Your task to perform on an android device: turn off translation in the chrome app Image 0: 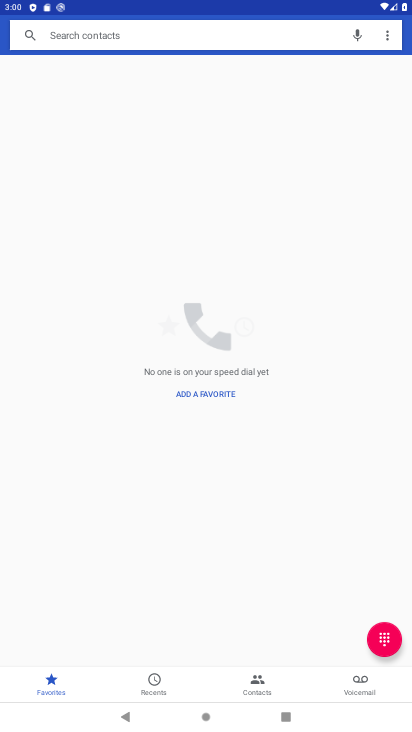
Step 0: press home button
Your task to perform on an android device: turn off translation in the chrome app Image 1: 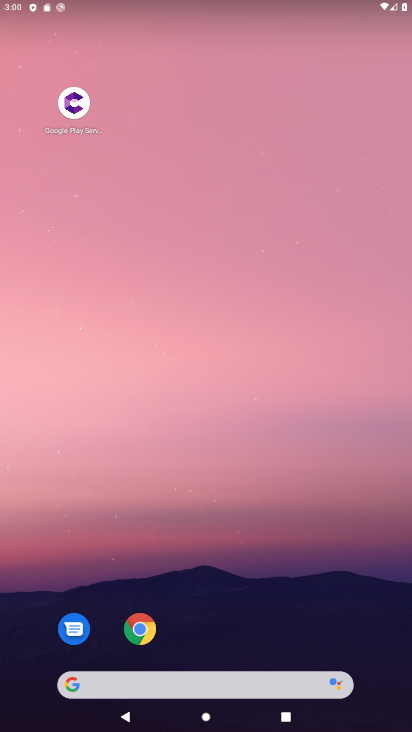
Step 1: click (135, 625)
Your task to perform on an android device: turn off translation in the chrome app Image 2: 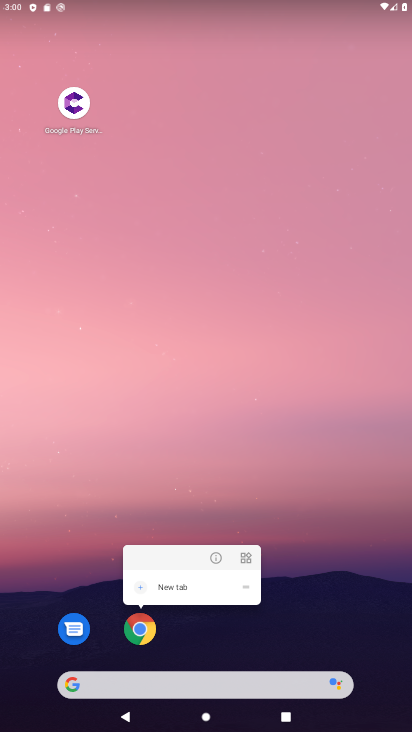
Step 2: click (147, 631)
Your task to perform on an android device: turn off translation in the chrome app Image 3: 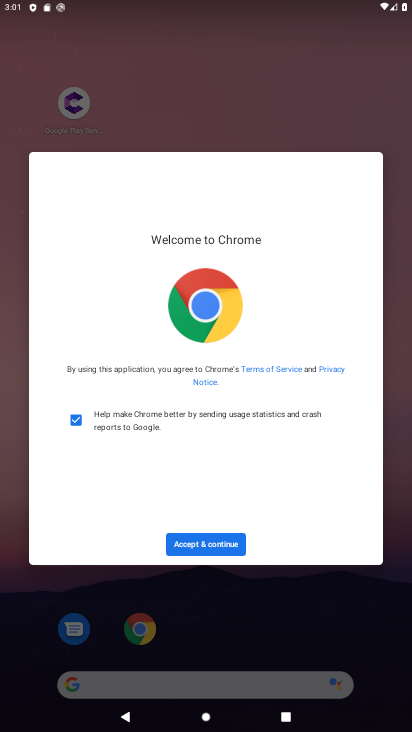
Step 3: click (221, 545)
Your task to perform on an android device: turn off translation in the chrome app Image 4: 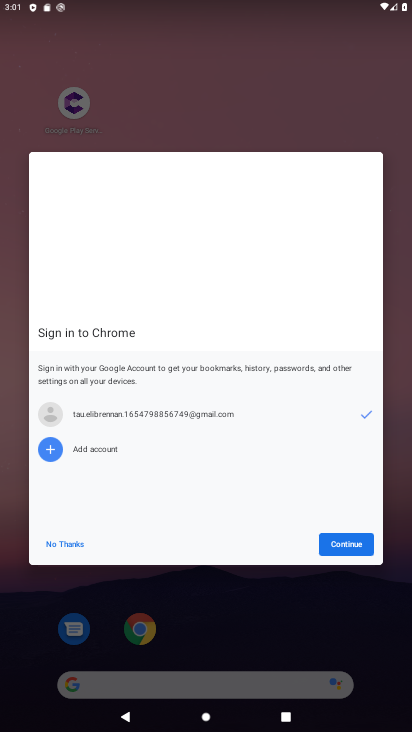
Step 4: click (332, 535)
Your task to perform on an android device: turn off translation in the chrome app Image 5: 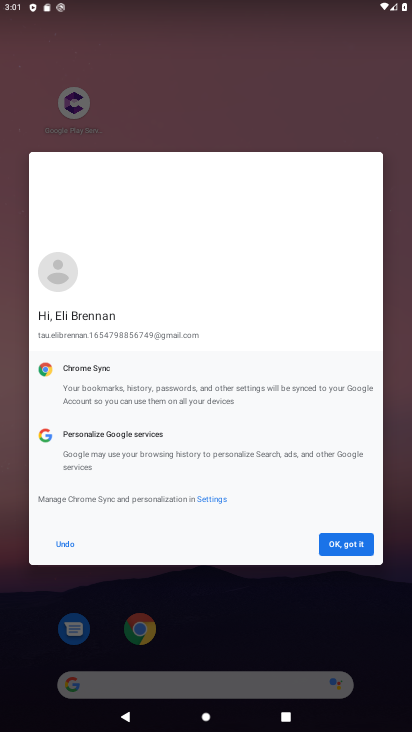
Step 5: click (363, 537)
Your task to perform on an android device: turn off translation in the chrome app Image 6: 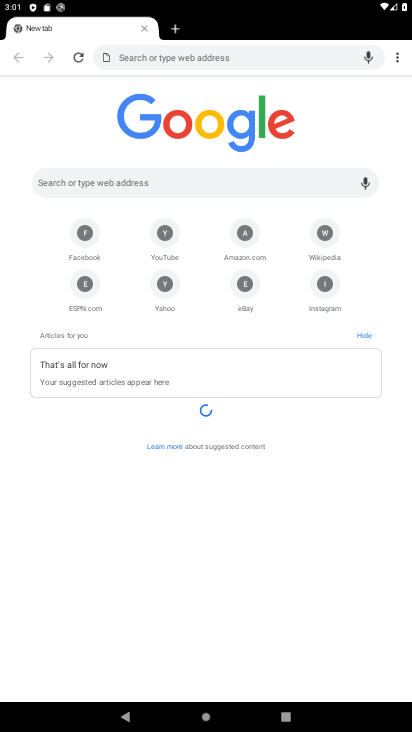
Step 6: click (396, 60)
Your task to perform on an android device: turn off translation in the chrome app Image 7: 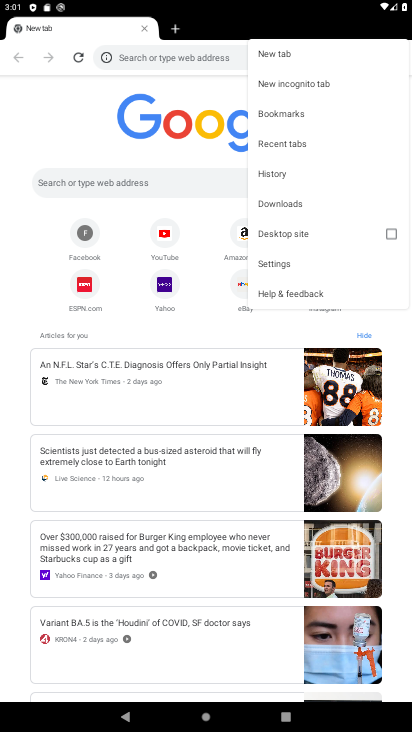
Step 7: click (266, 265)
Your task to perform on an android device: turn off translation in the chrome app Image 8: 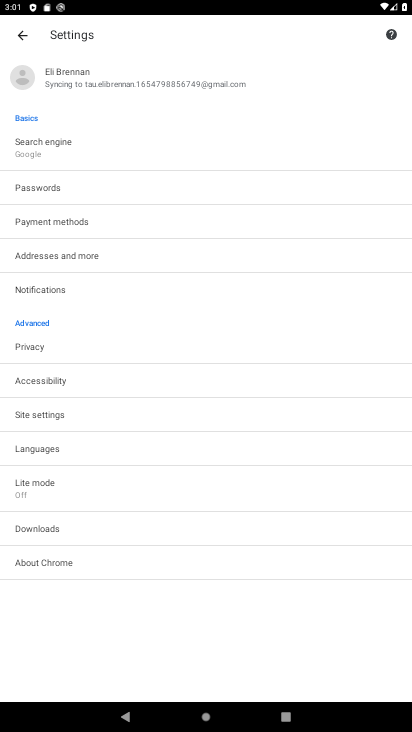
Step 8: click (28, 455)
Your task to perform on an android device: turn off translation in the chrome app Image 9: 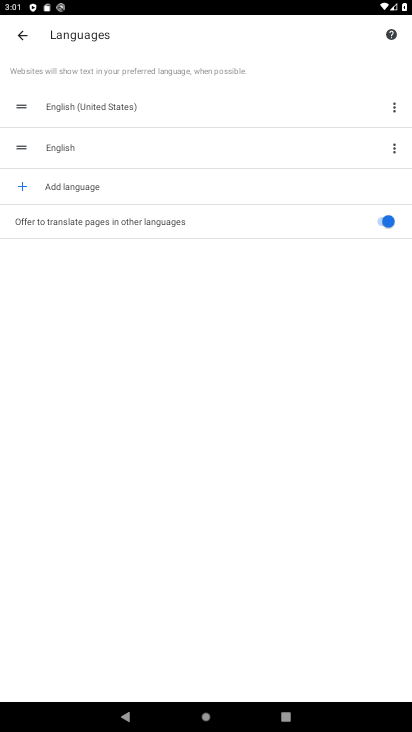
Step 9: task complete